Your task to perform on an android device: Show me recent news Image 0: 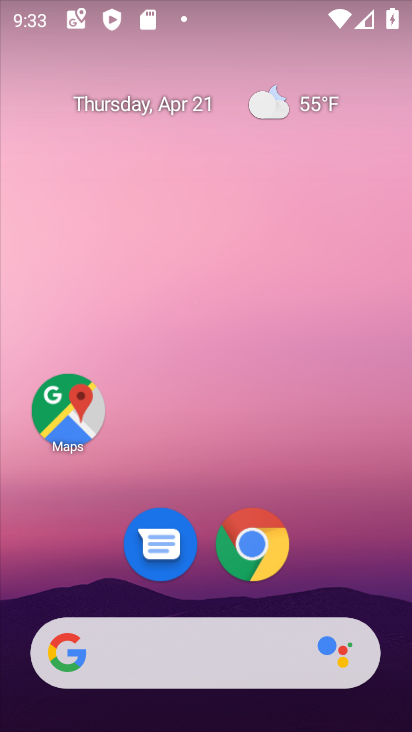
Step 0: drag from (354, 484) to (260, 22)
Your task to perform on an android device: Show me recent news Image 1: 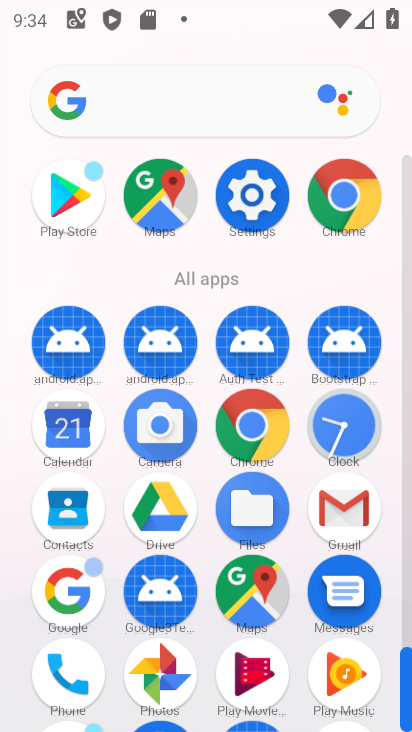
Step 1: click (134, 106)
Your task to perform on an android device: Show me recent news Image 2: 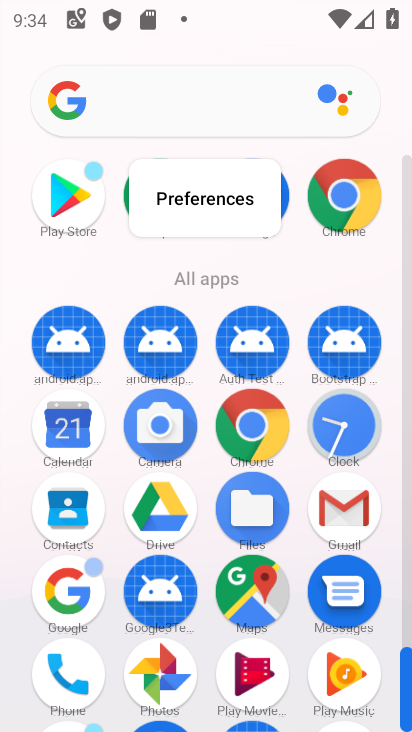
Step 2: click (142, 103)
Your task to perform on an android device: Show me recent news Image 3: 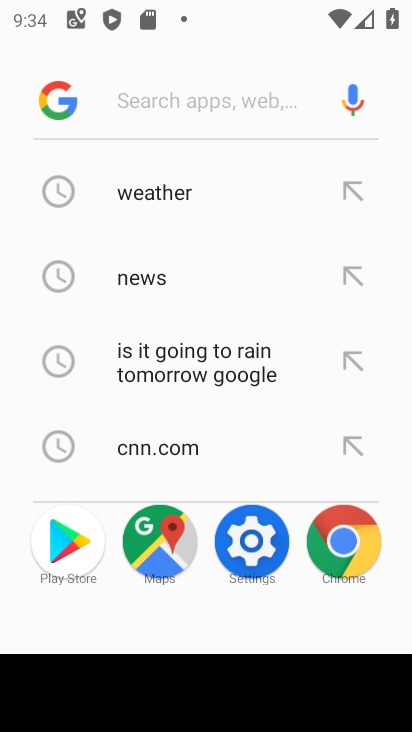
Step 3: type "recent news"
Your task to perform on an android device: Show me recent news Image 4: 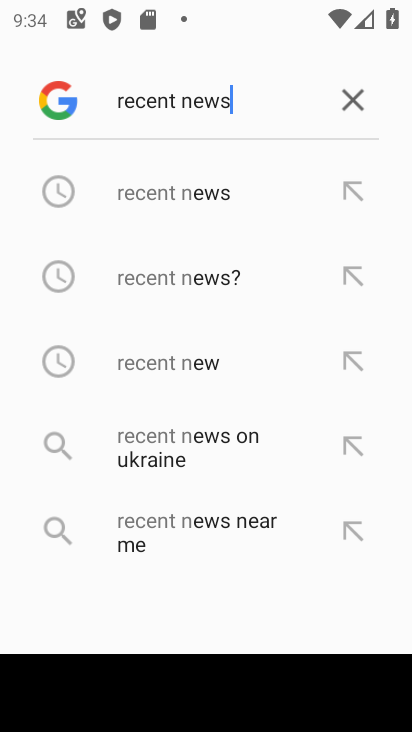
Step 4: type ""
Your task to perform on an android device: Show me recent news Image 5: 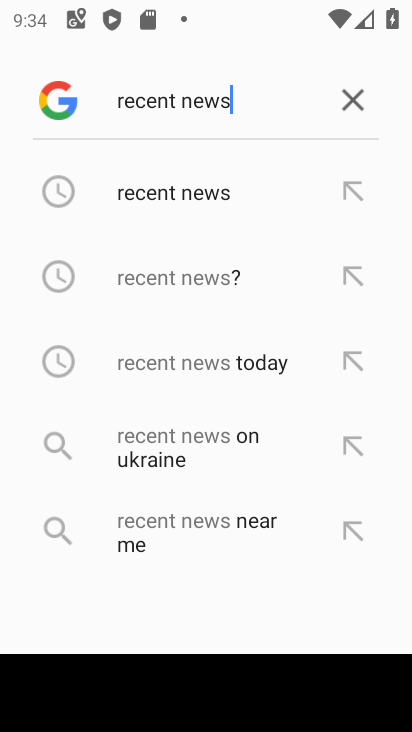
Step 5: click (215, 198)
Your task to perform on an android device: Show me recent news Image 6: 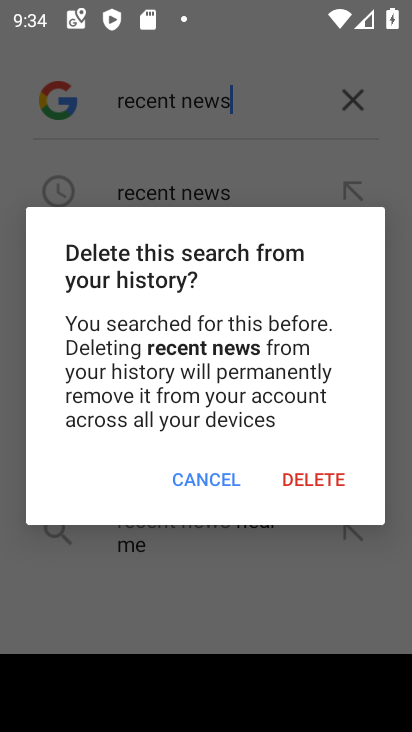
Step 6: click (219, 478)
Your task to perform on an android device: Show me recent news Image 7: 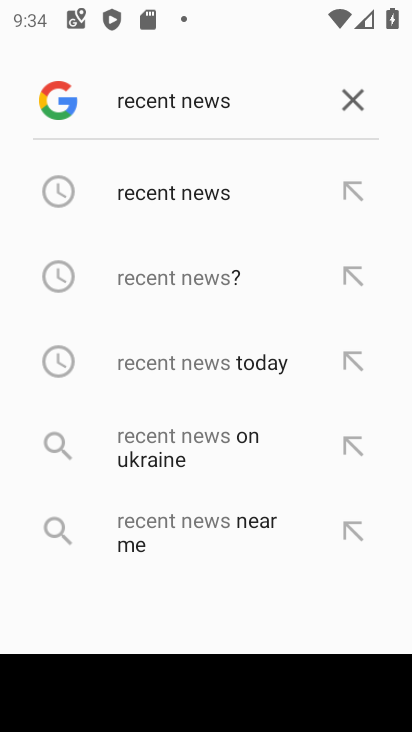
Step 7: click (143, 190)
Your task to perform on an android device: Show me recent news Image 8: 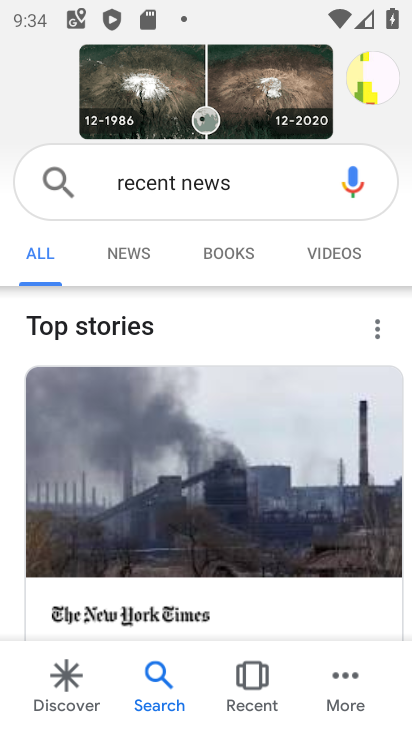
Step 8: click (140, 250)
Your task to perform on an android device: Show me recent news Image 9: 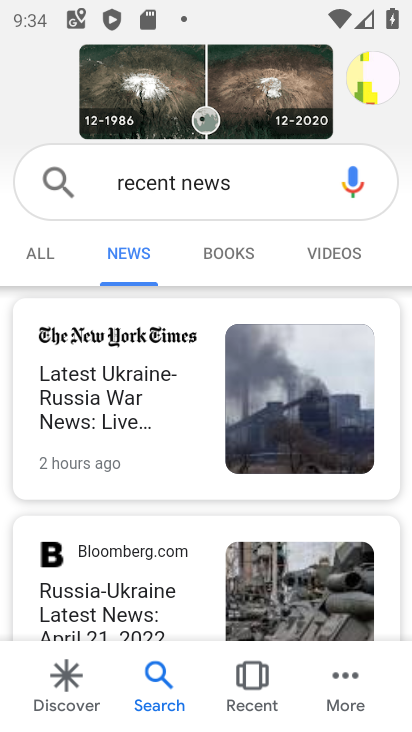
Step 9: task complete